Your task to perform on an android device: Check the weather Image 0: 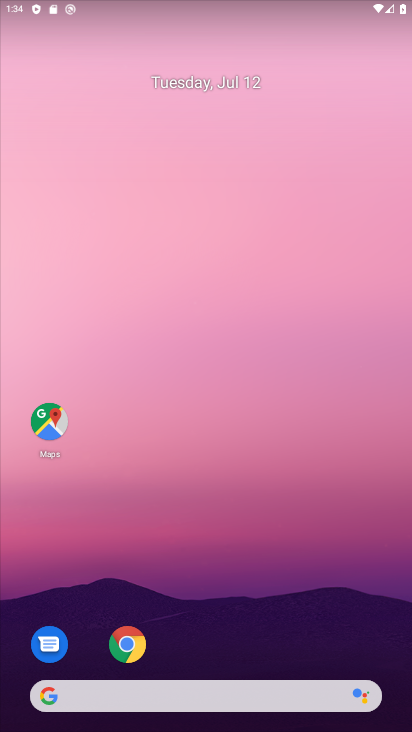
Step 0: click (216, 682)
Your task to perform on an android device: Check the weather Image 1: 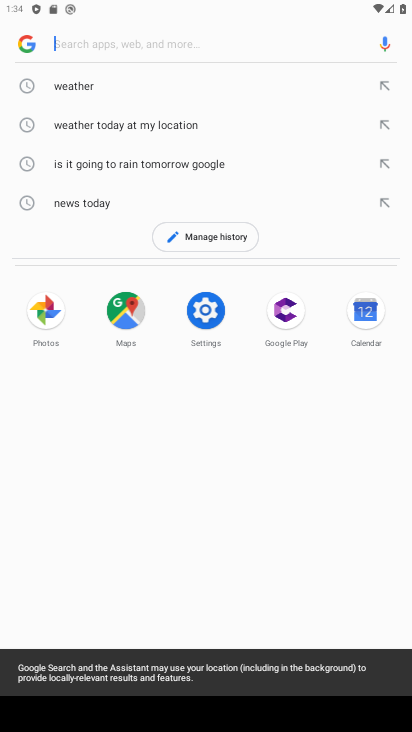
Step 1: click (55, 102)
Your task to perform on an android device: Check the weather Image 2: 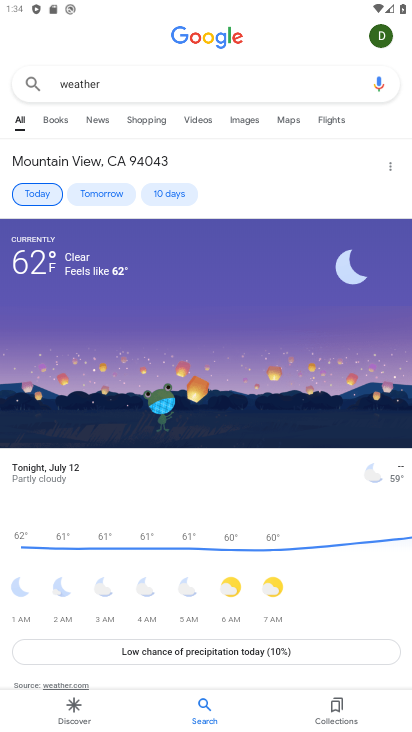
Step 2: task complete